Your task to perform on an android device: Open Android settings Image 0: 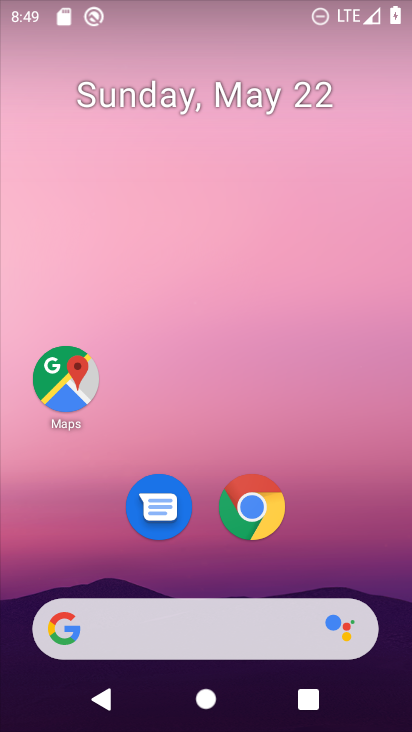
Step 0: drag from (261, 710) to (315, 14)
Your task to perform on an android device: Open Android settings Image 1: 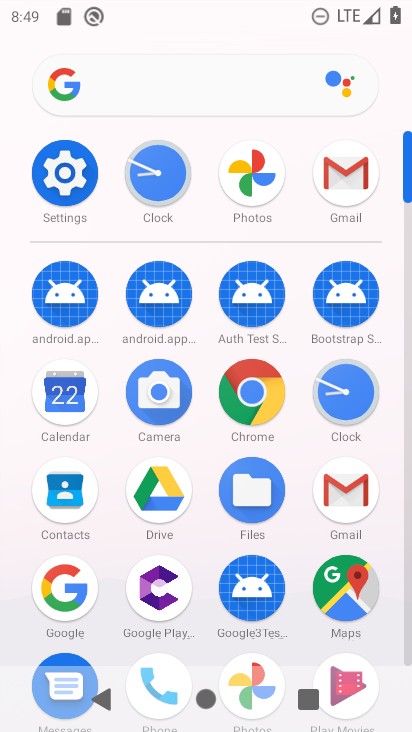
Step 1: click (72, 179)
Your task to perform on an android device: Open Android settings Image 2: 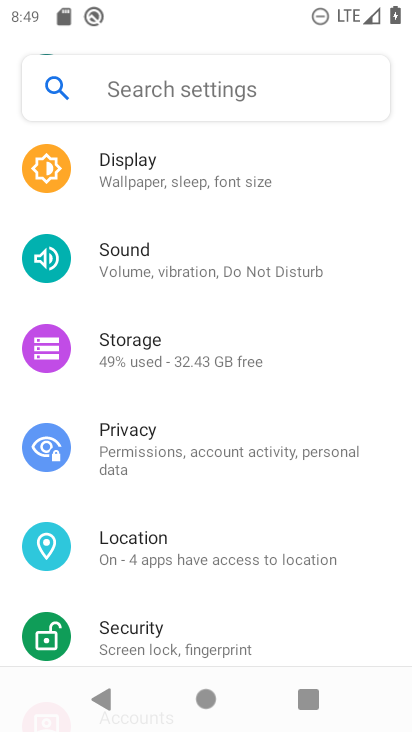
Step 2: drag from (266, 559) to (405, 15)
Your task to perform on an android device: Open Android settings Image 3: 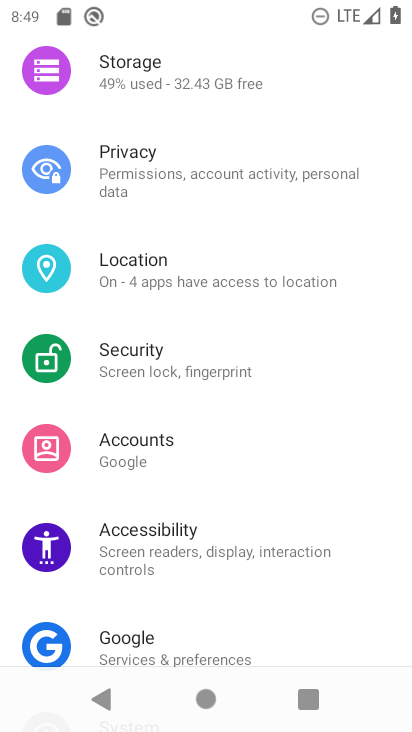
Step 3: drag from (174, 347) to (219, 20)
Your task to perform on an android device: Open Android settings Image 4: 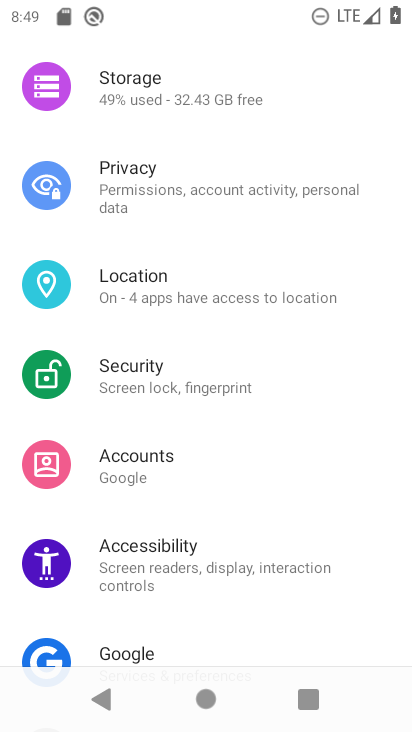
Step 4: drag from (278, 314) to (307, 12)
Your task to perform on an android device: Open Android settings Image 5: 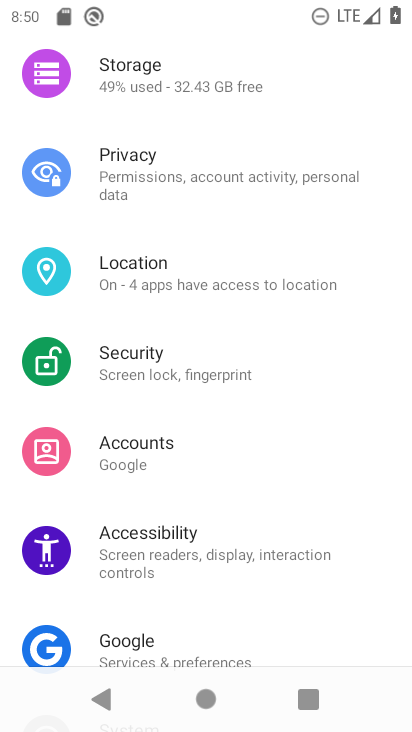
Step 5: drag from (180, 484) to (202, 7)
Your task to perform on an android device: Open Android settings Image 6: 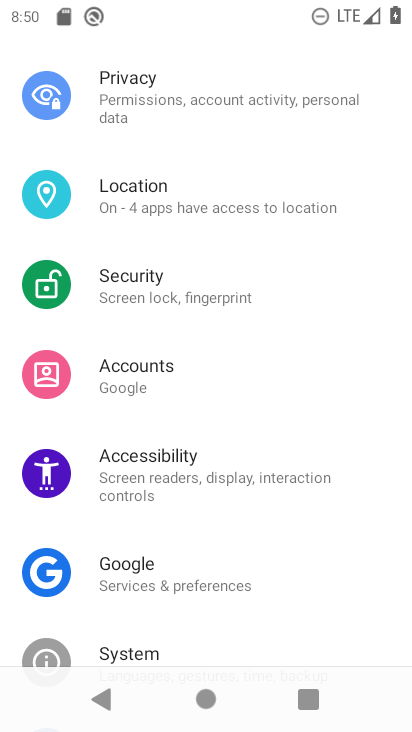
Step 6: drag from (262, 547) to (176, 43)
Your task to perform on an android device: Open Android settings Image 7: 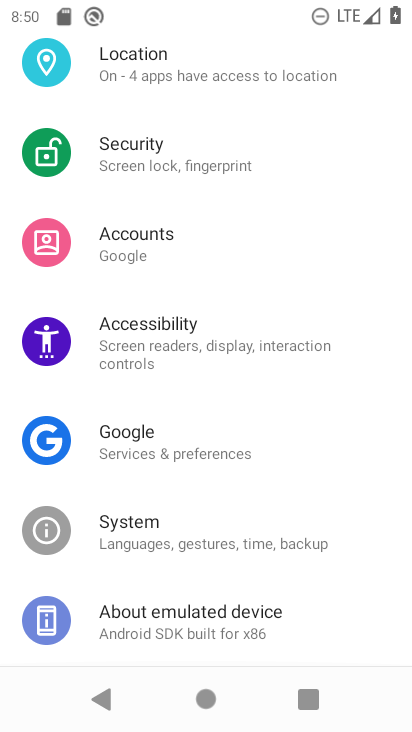
Step 7: drag from (209, 469) to (202, 16)
Your task to perform on an android device: Open Android settings Image 8: 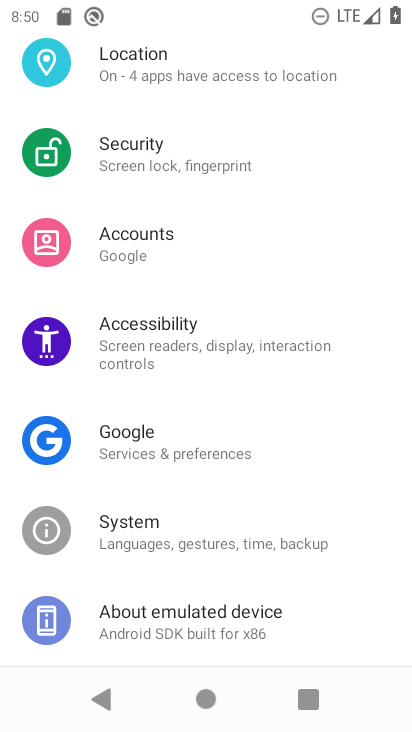
Step 8: click (243, 633)
Your task to perform on an android device: Open Android settings Image 9: 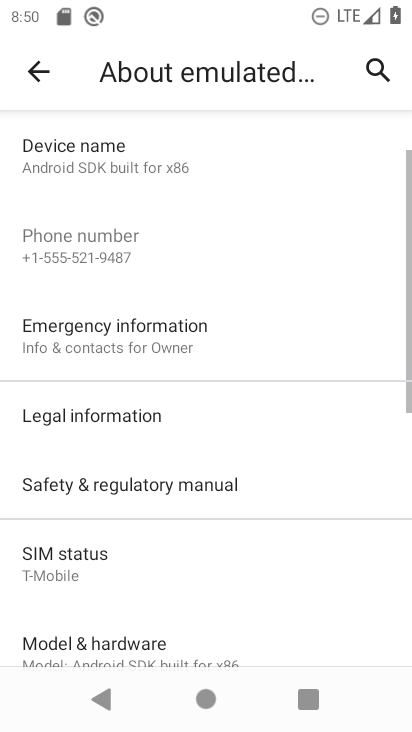
Step 9: task complete